Your task to perform on an android device: check data usage Image 0: 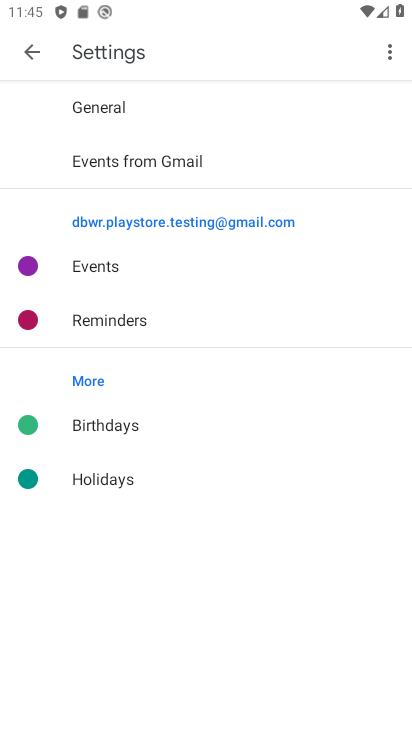
Step 0: press back button
Your task to perform on an android device: check data usage Image 1: 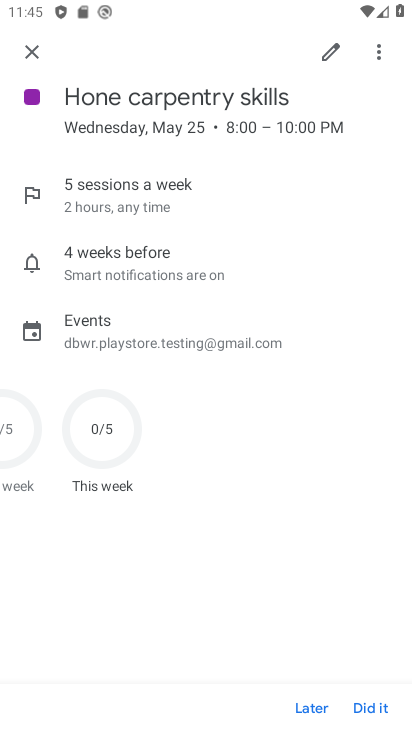
Step 1: press back button
Your task to perform on an android device: check data usage Image 2: 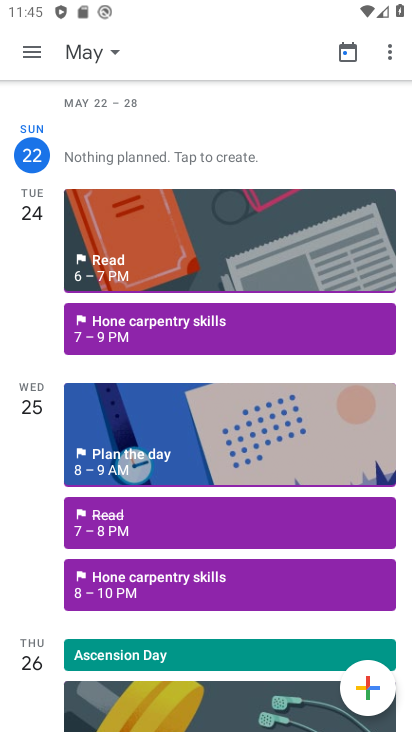
Step 2: press back button
Your task to perform on an android device: check data usage Image 3: 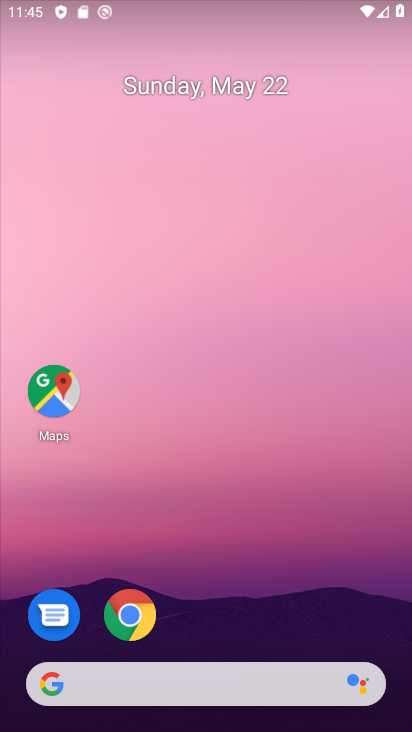
Step 3: drag from (216, 583) to (277, 17)
Your task to perform on an android device: check data usage Image 4: 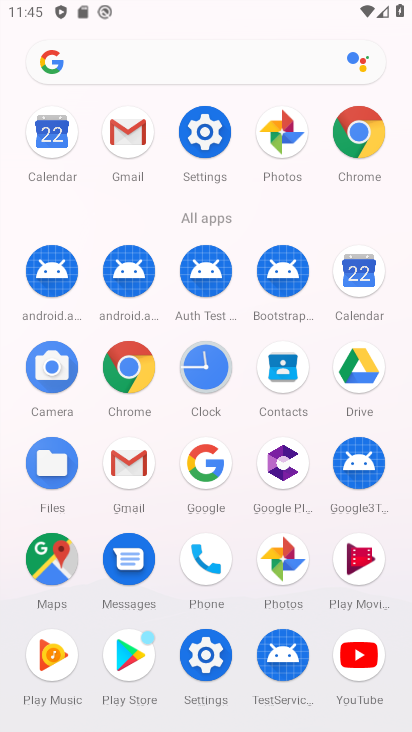
Step 4: click (198, 124)
Your task to perform on an android device: check data usage Image 5: 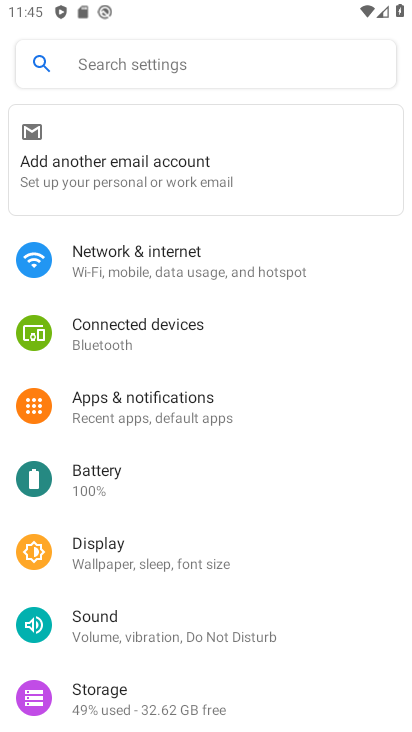
Step 5: click (113, 254)
Your task to perform on an android device: check data usage Image 6: 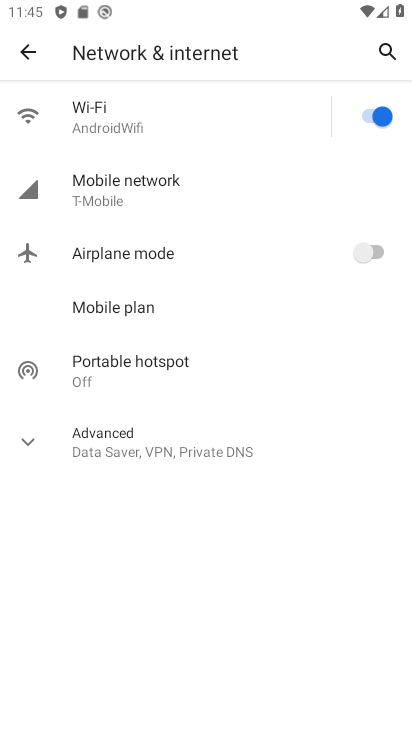
Step 6: click (111, 191)
Your task to perform on an android device: check data usage Image 7: 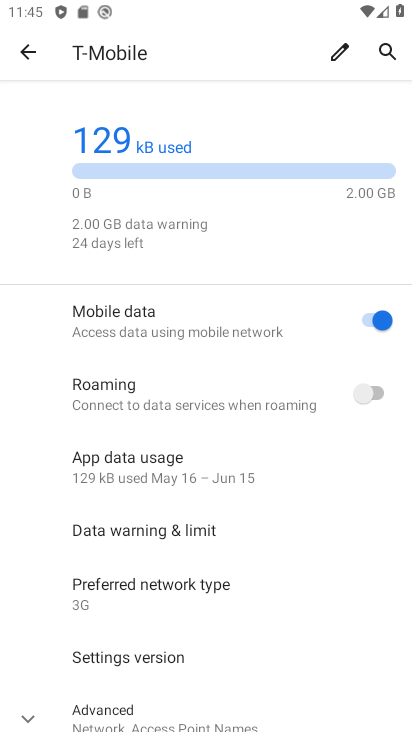
Step 7: click (131, 462)
Your task to perform on an android device: check data usage Image 8: 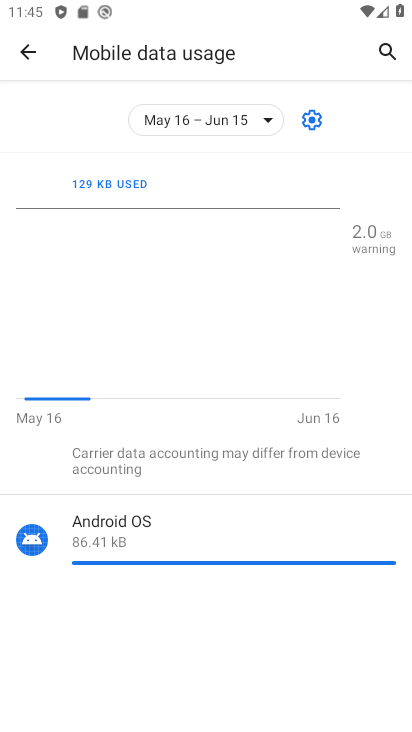
Step 8: task complete